Your task to perform on an android device: Search for "amazon basics triple a" on target.com, select the first entry, add it to the cart, then select checkout. Image 0: 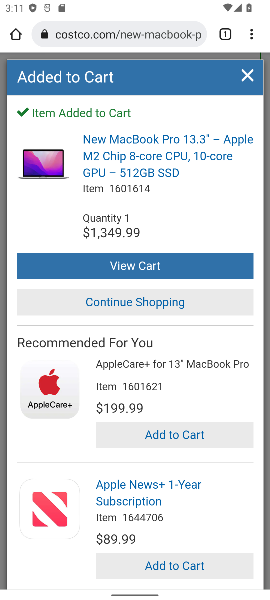
Step 0: press home button
Your task to perform on an android device: Search for "amazon basics triple a" on target.com, select the first entry, add it to the cart, then select checkout. Image 1: 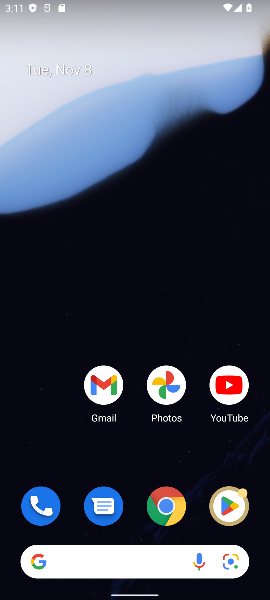
Step 1: drag from (124, 532) to (208, 126)
Your task to perform on an android device: Search for "amazon basics triple a" on target.com, select the first entry, add it to the cart, then select checkout. Image 2: 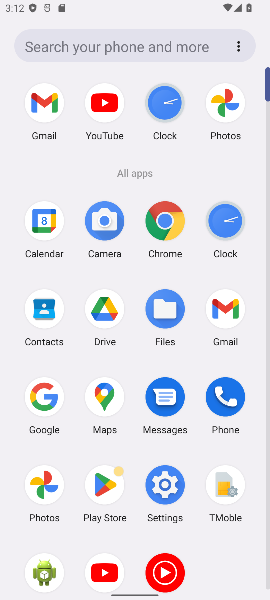
Step 2: click (48, 406)
Your task to perform on an android device: Search for "amazon basics triple a" on target.com, select the first entry, add it to the cart, then select checkout. Image 3: 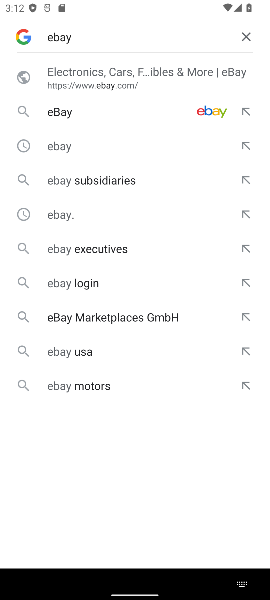
Step 3: click (244, 34)
Your task to perform on an android device: Search for "amazon basics triple a" on target.com, select the first entry, add it to the cart, then select checkout. Image 4: 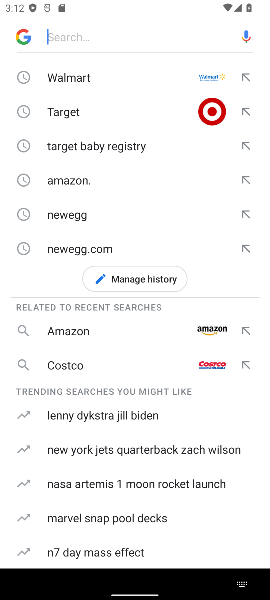
Step 4: type "target.com"
Your task to perform on an android device: Search for "amazon basics triple a" on target.com, select the first entry, add it to the cart, then select checkout. Image 5: 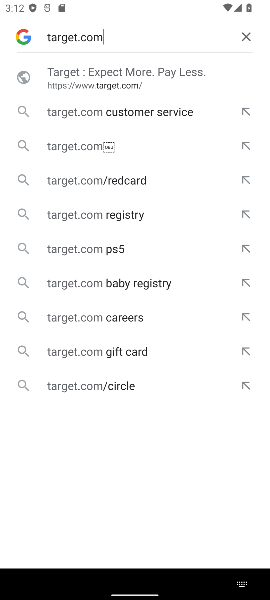
Step 5: click (172, 76)
Your task to perform on an android device: Search for "amazon basics triple a" on target.com, select the first entry, add it to the cart, then select checkout. Image 6: 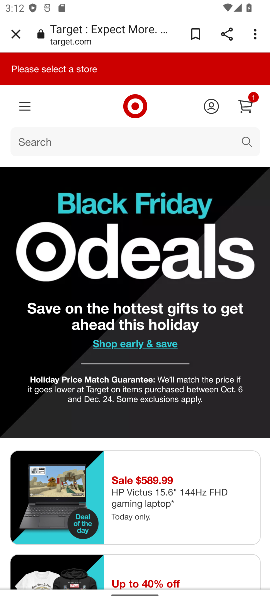
Step 6: drag from (187, 428) to (258, 107)
Your task to perform on an android device: Search for "amazon basics triple a" on target.com, select the first entry, add it to the cart, then select checkout. Image 7: 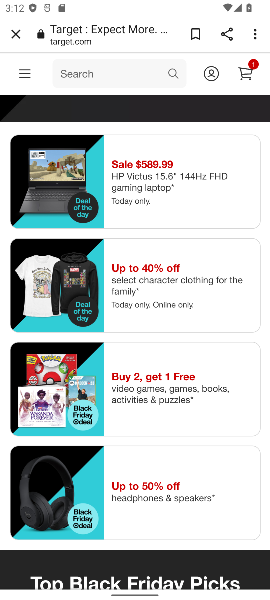
Step 7: click (147, 180)
Your task to perform on an android device: Search for "amazon basics triple a" on target.com, select the first entry, add it to the cart, then select checkout. Image 8: 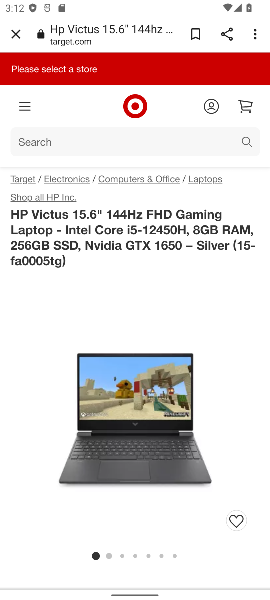
Step 8: drag from (189, 430) to (268, 73)
Your task to perform on an android device: Search for "amazon basics triple a" on target.com, select the first entry, add it to the cart, then select checkout. Image 9: 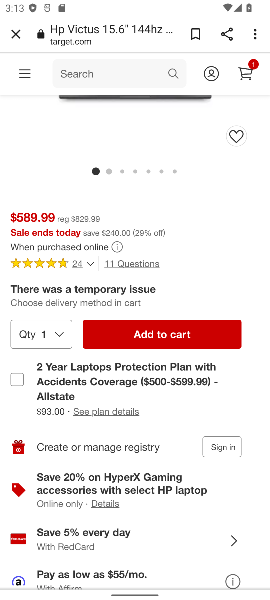
Step 9: click (176, 334)
Your task to perform on an android device: Search for "amazon basics triple a" on target.com, select the first entry, add it to the cart, then select checkout. Image 10: 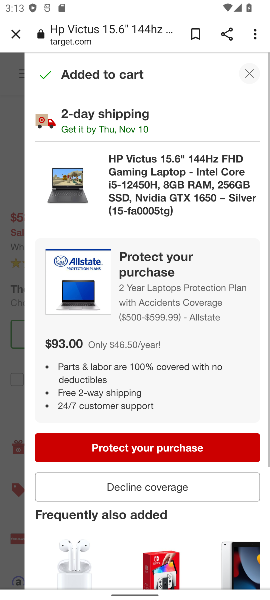
Step 10: drag from (206, 495) to (206, 464)
Your task to perform on an android device: Search for "amazon basics triple a" on target.com, select the first entry, add it to the cart, then select checkout. Image 11: 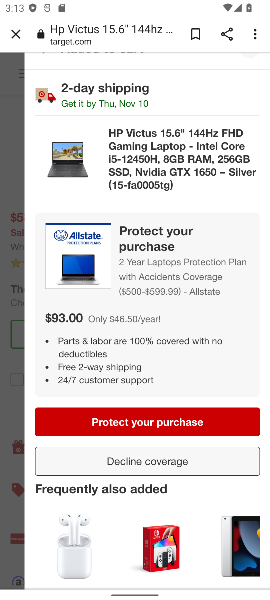
Step 11: click (204, 463)
Your task to perform on an android device: Search for "amazon basics triple a" on target.com, select the first entry, add it to the cart, then select checkout. Image 12: 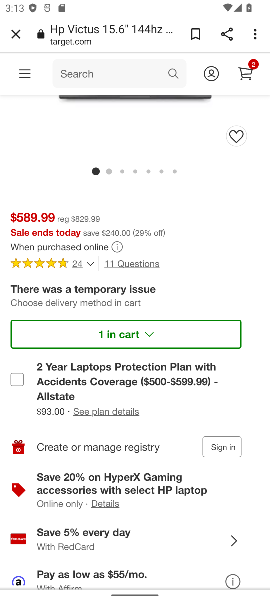
Step 12: click (248, 78)
Your task to perform on an android device: Search for "amazon basics triple a" on target.com, select the first entry, add it to the cart, then select checkout. Image 13: 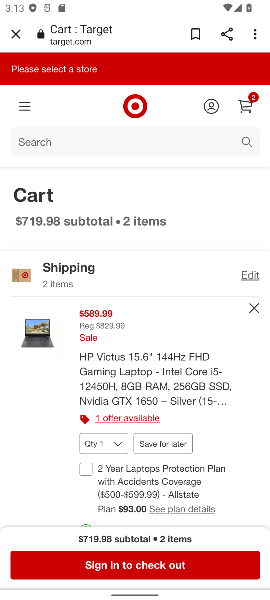
Step 13: click (205, 560)
Your task to perform on an android device: Search for "amazon basics triple a" on target.com, select the first entry, add it to the cart, then select checkout. Image 14: 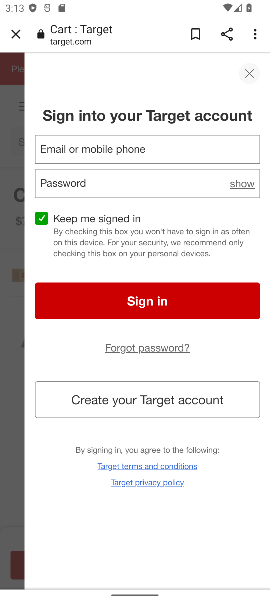
Step 14: task complete